Your task to perform on an android device: turn off sleep mode Image 0: 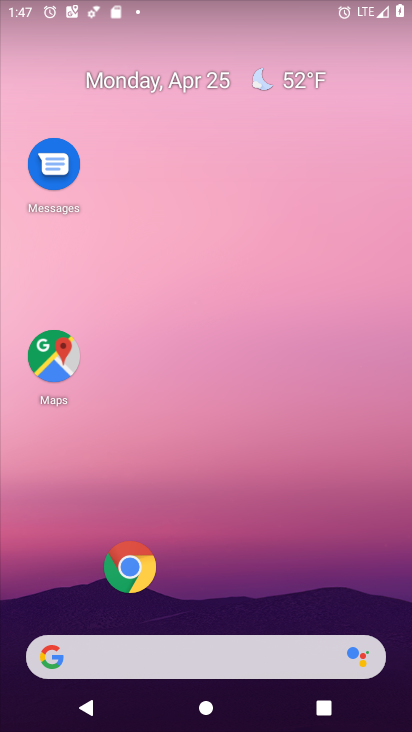
Step 0: drag from (214, 501) to (324, 246)
Your task to perform on an android device: turn off sleep mode Image 1: 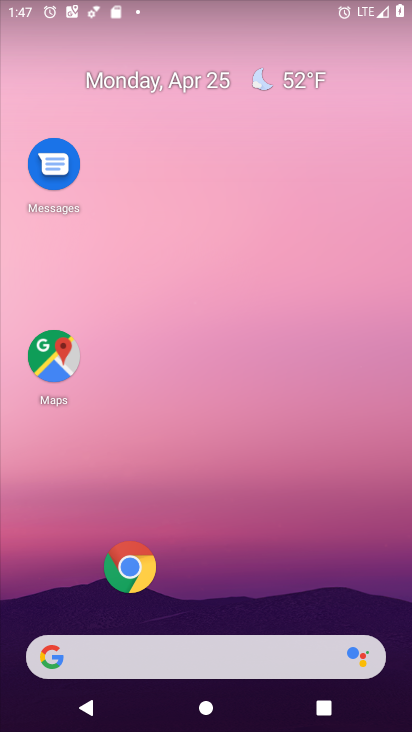
Step 1: drag from (240, 549) to (305, 161)
Your task to perform on an android device: turn off sleep mode Image 2: 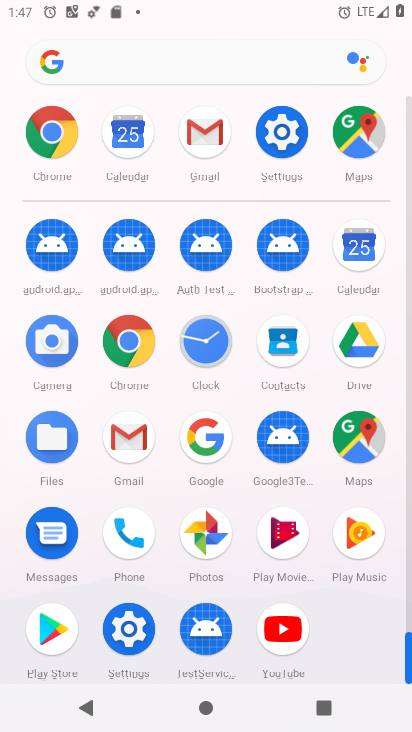
Step 2: click (295, 133)
Your task to perform on an android device: turn off sleep mode Image 3: 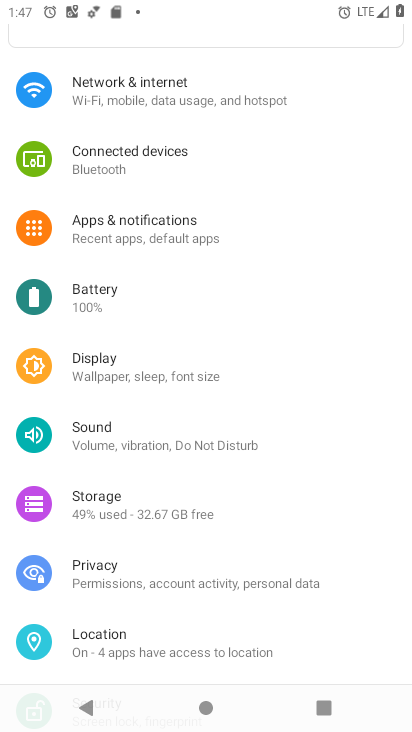
Step 3: click (165, 370)
Your task to perform on an android device: turn off sleep mode Image 4: 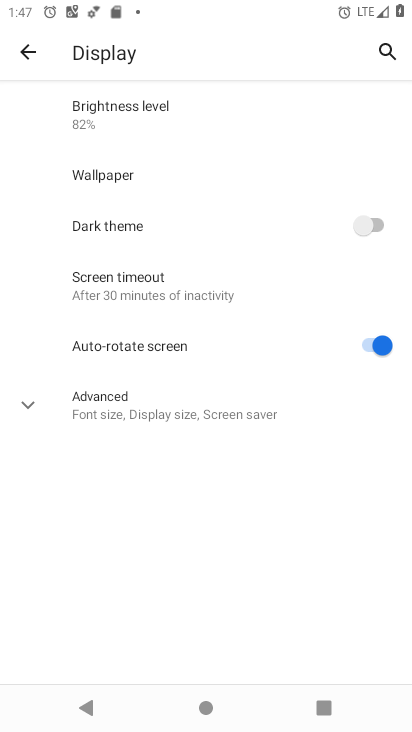
Step 4: click (170, 425)
Your task to perform on an android device: turn off sleep mode Image 5: 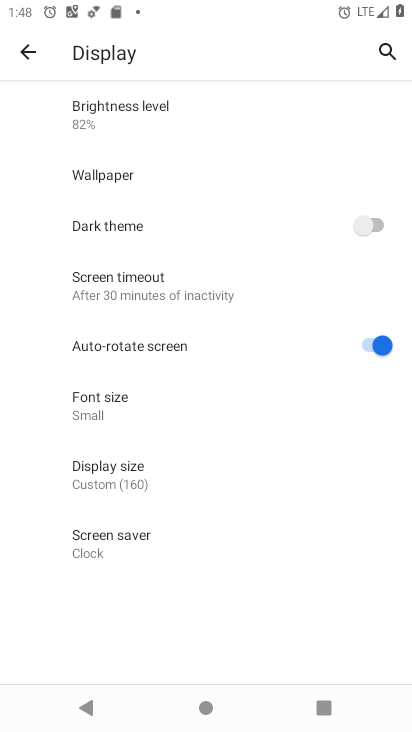
Step 5: task complete